Your task to perform on an android device: Go to Google maps Image 0: 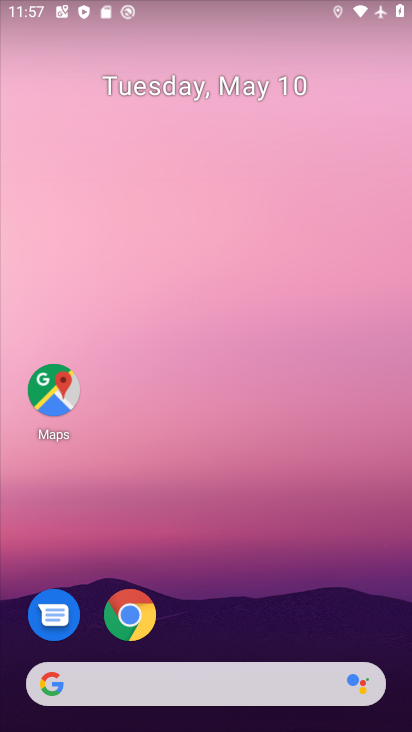
Step 0: drag from (230, 434) to (221, 27)
Your task to perform on an android device: Go to Google maps Image 1: 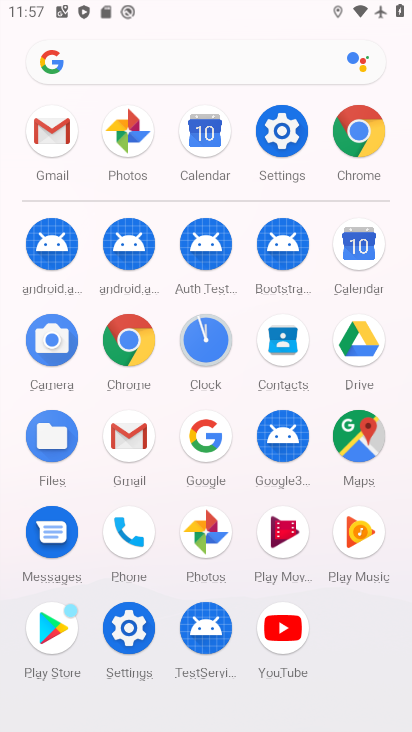
Step 1: drag from (10, 461) to (9, 179)
Your task to perform on an android device: Go to Google maps Image 2: 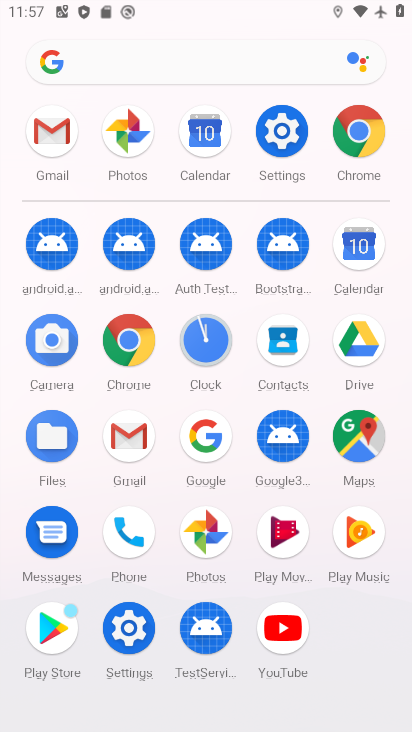
Step 2: drag from (9, 523) to (8, 266)
Your task to perform on an android device: Go to Google maps Image 3: 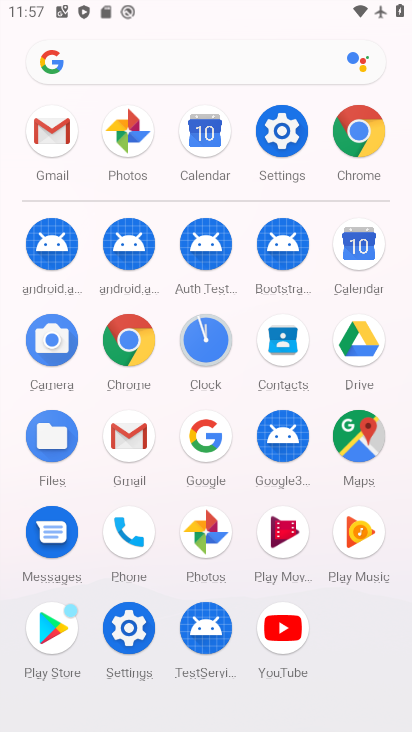
Step 3: click (358, 426)
Your task to perform on an android device: Go to Google maps Image 4: 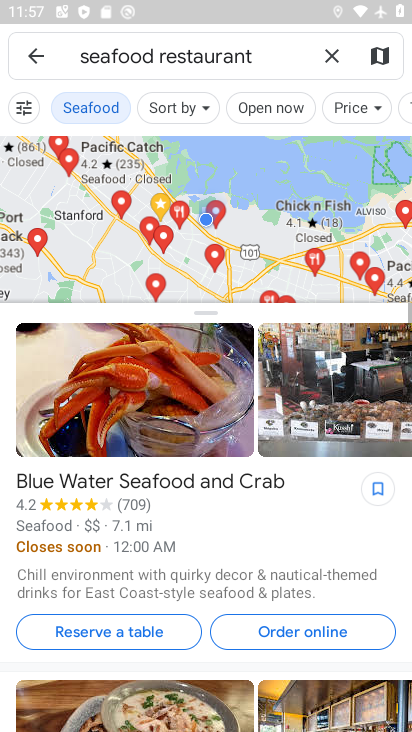
Step 4: click (23, 49)
Your task to perform on an android device: Go to Google maps Image 5: 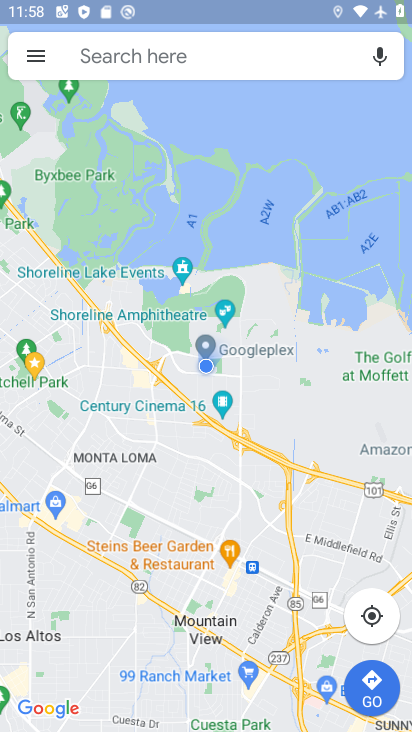
Step 5: task complete